Your task to perform on an android device: turn off smart reply in the gmail app Image 0: 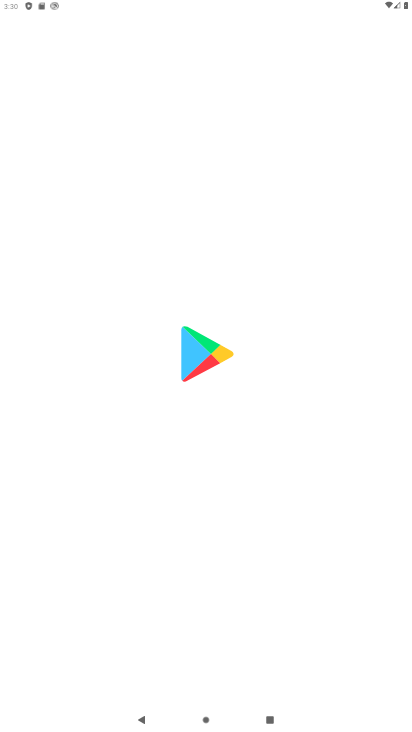
Step 0: drag from (319, 5) to (264, 473)
Your task to perform on an android device: turn off smart reply in the gmail app Image 1: 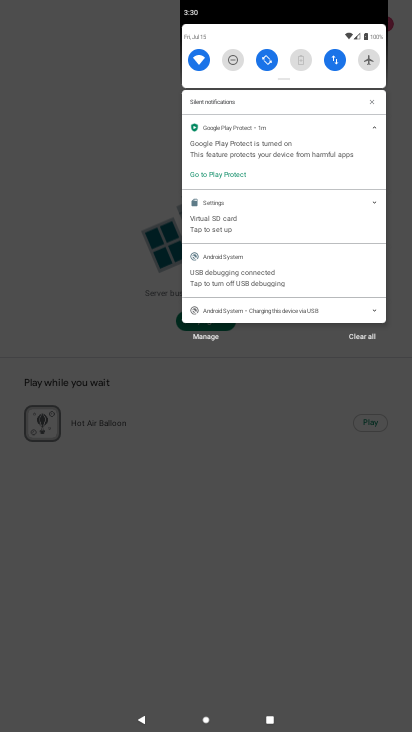
Step 1: press home button
Your task to perform on an android device: turn off smart reply in the gmail app Image 2: 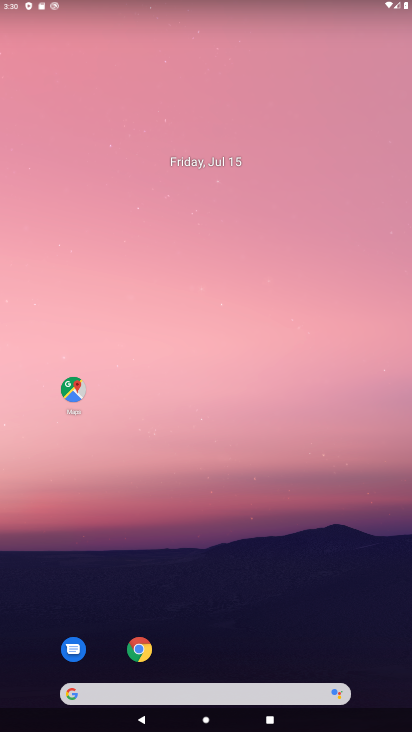
Step 2: drag from (219, 585) to (147, 119)
Your task to perform on an android device: turn off smart reply in the gmail app Image 3: 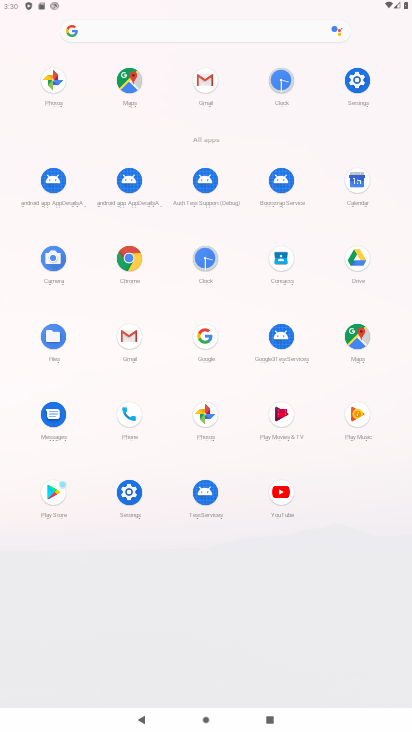
Step 3: click (134, 335)
Your task to perform on an android device: turn off smart reply in the gmail app Image 4: 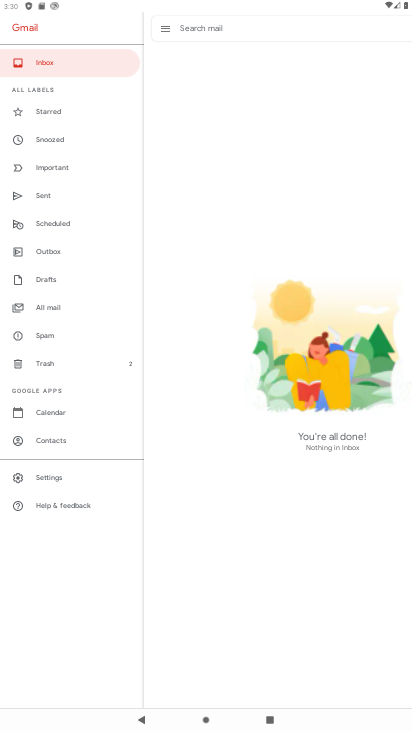
Step 4: click (56, 476)
Your task to perform on an android device: turn off smart reply in the gmail app Image 5: 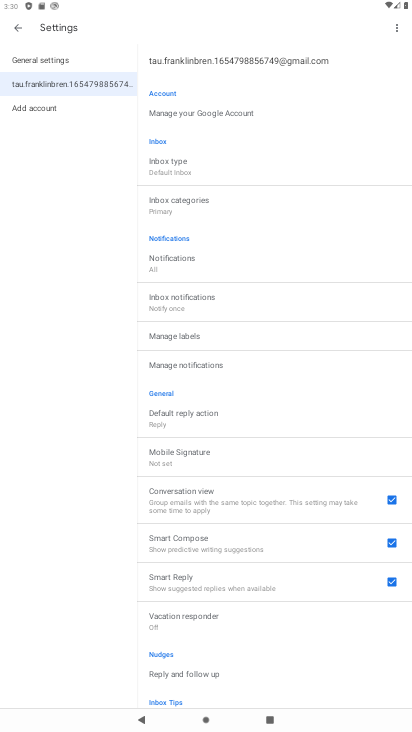
Step 5: click (393, 584)
Your task to perform on an android device: turn off smart reply in the gmail app Image 6: 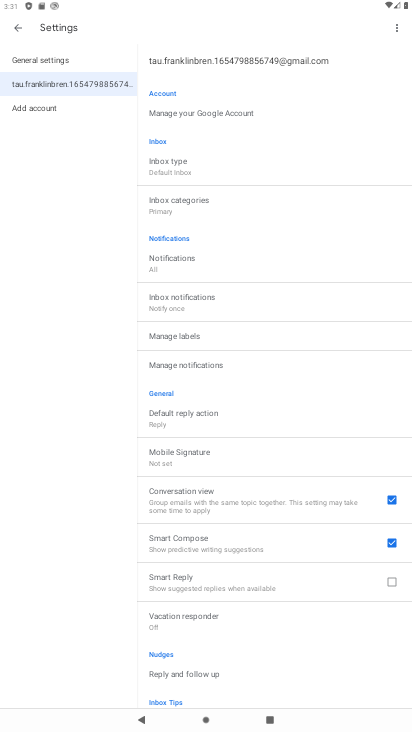
Step 6: task complete